Your task to perform on an android device: toggle sleep mode Image 0: 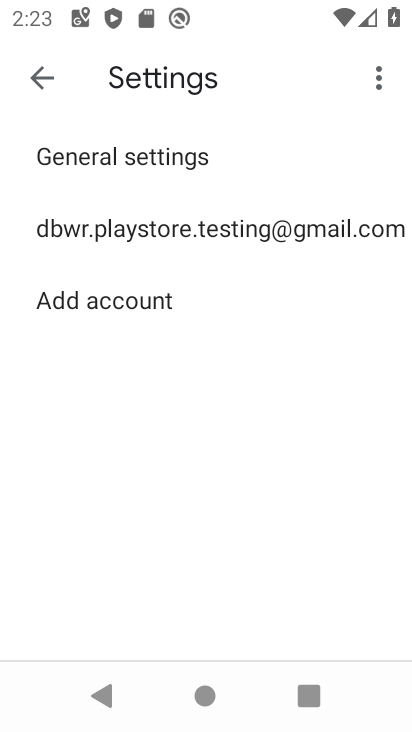
Step 0: press home button
Your task to perform on an android device: toggle sleep mode Image 1: 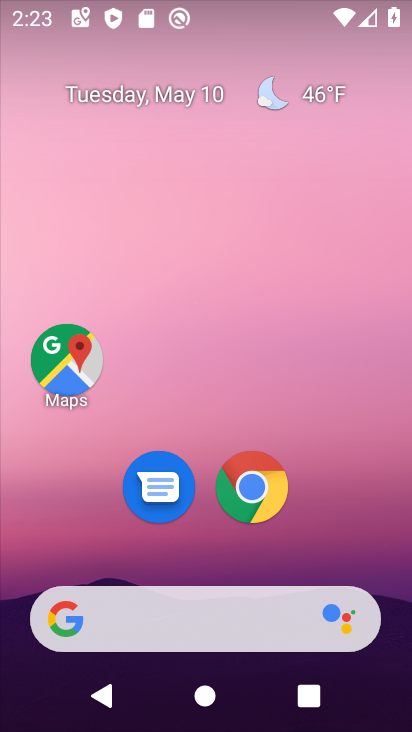
Step 1: drag from (326, 509) to (261, 133)
Your task to perform on an android device: toggle sleep mode Image 2: 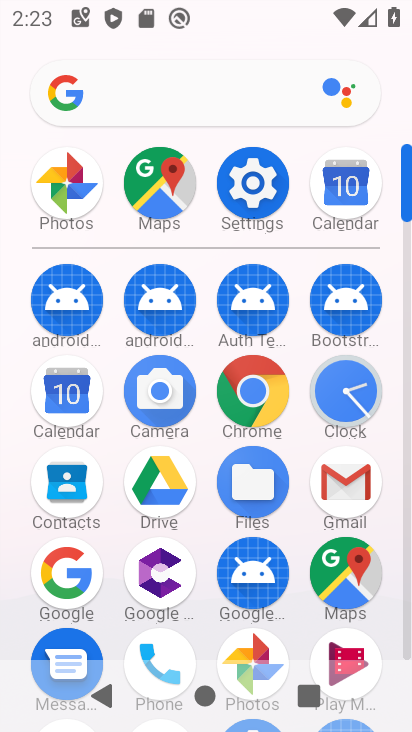
Step 2: click (237, 174)
Your task to perform on an android device: toggle sleep mode Image 3: 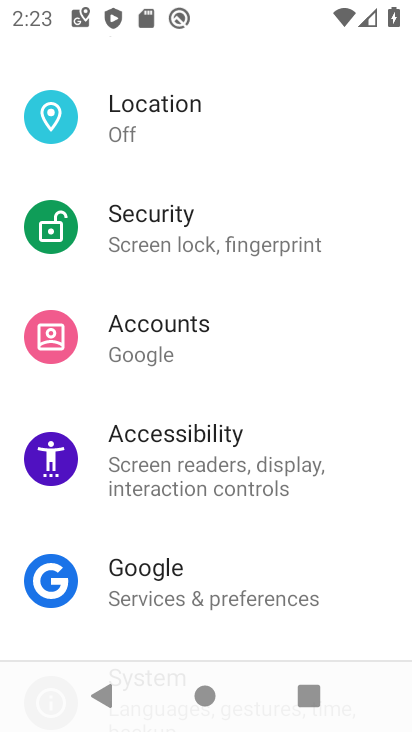
Step 3: drag from (241, 207) to (234, 585)
Your task to perform on an android device: toggle sleep mode Image 4: 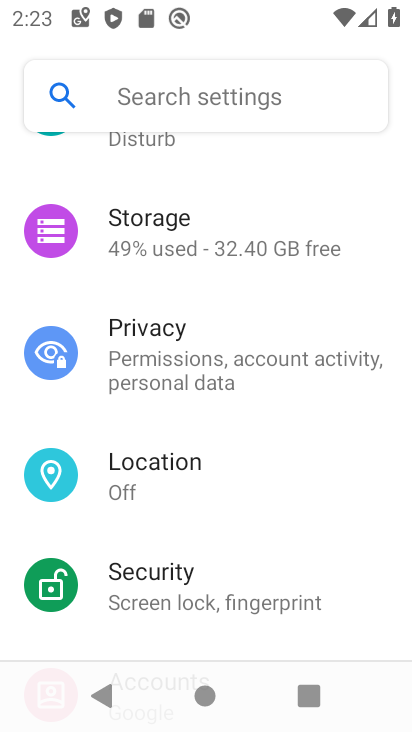
Step 4: drag from (269, 260) to (276, 625)
Your task to perform on an android device: toggle sleep mode Image 5: 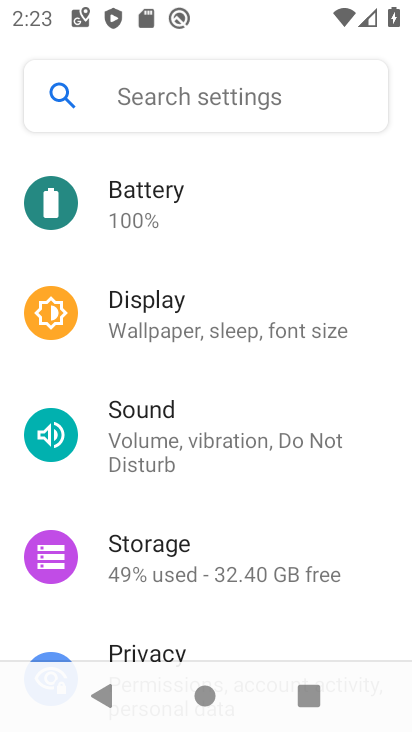
Step 5: click (193, 324)
Your task to perform on an android device: toggle sleep mode Image 6: 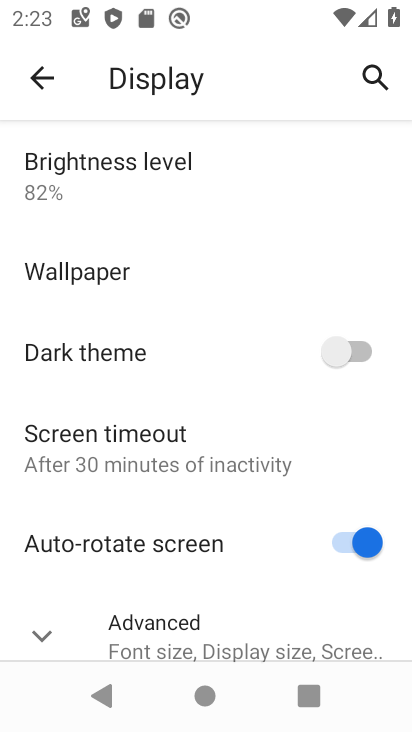
Step 6: click (168, 451)
Your task to perform on an android device: toggle sleep mode Image 7: 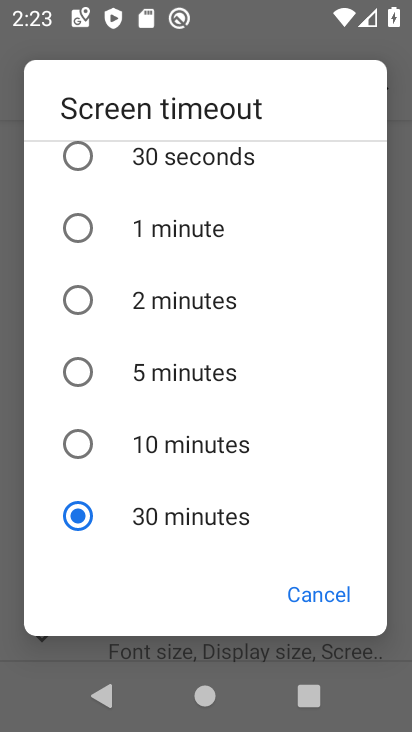
Step 7: click (192, 449)
Your task to perform on an android device: toggle sleep mode Image 8: 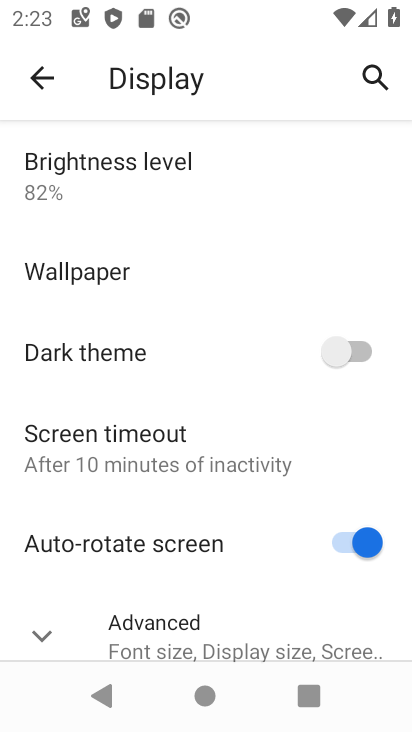
Step 8: task complete